Your task to perform on an android device: change notifications settings Image 0: 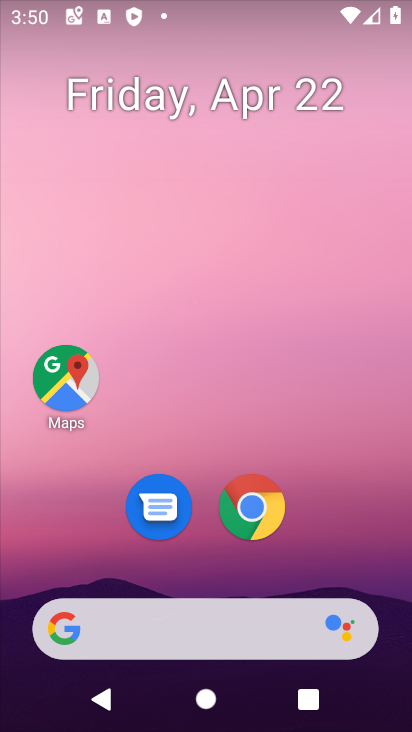
Step 0: drag from (350, 532) to (346, 47)
Your task to perform on an android device: change notifications settings Image 1: 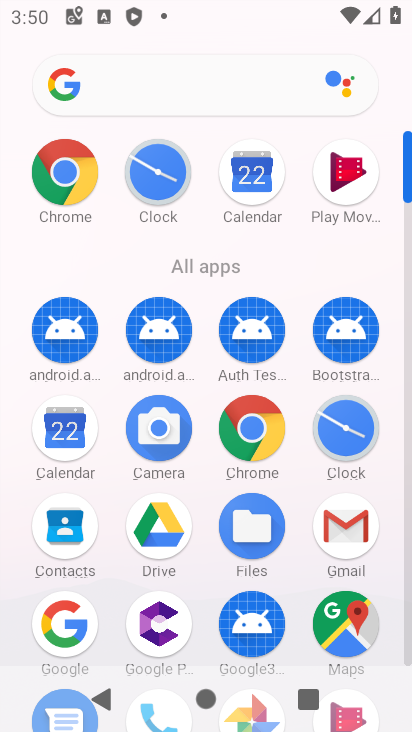
Step 1: drag from (409, 495) to (408, 129)
Your task to perform on an android device: change notifications settings Image 2: 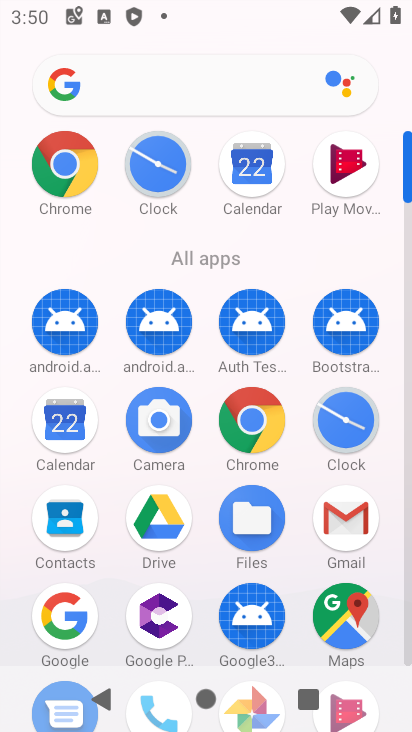
Step 2: drag from (384, 519) to (411, 312)
Your task to perform on an android device: change notifications settings Image 3: 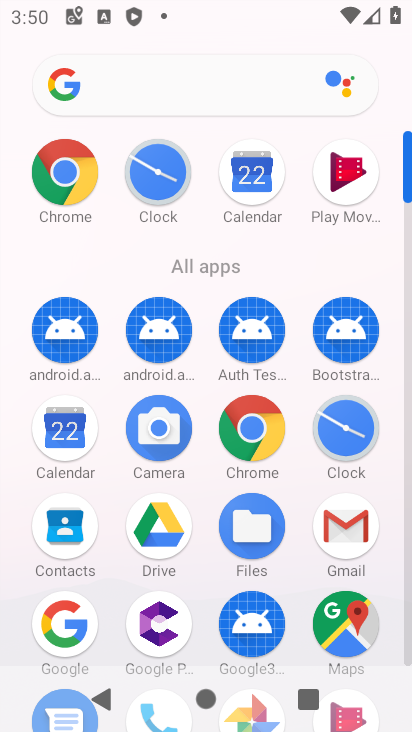
Step 3: drag from (381, 595) to (337, 151)
Your task to perform on an android device: change notifications settings Image 4: 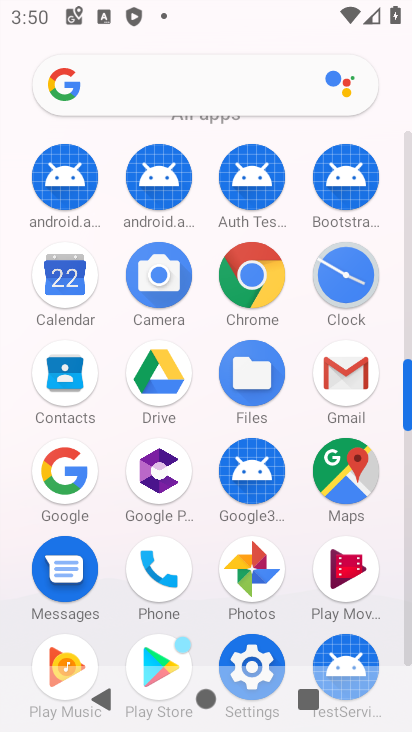
Step 4: click (264, 651)
Your task to perform on an android device: change notifications settings Image 5: 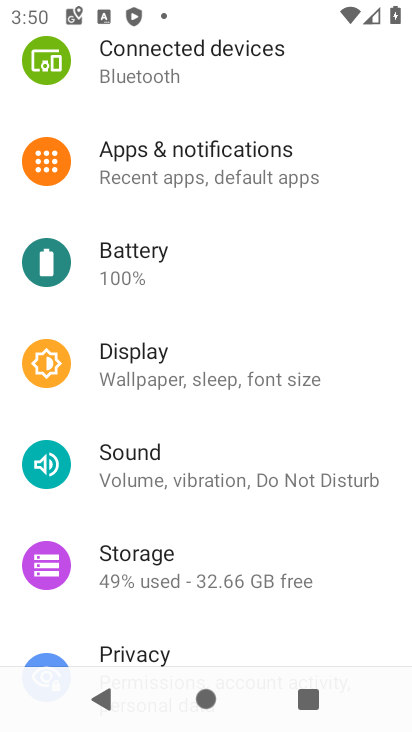
Step 5: click (248, 169)
Your task to perform on an android device: change notifications settings Image 6: 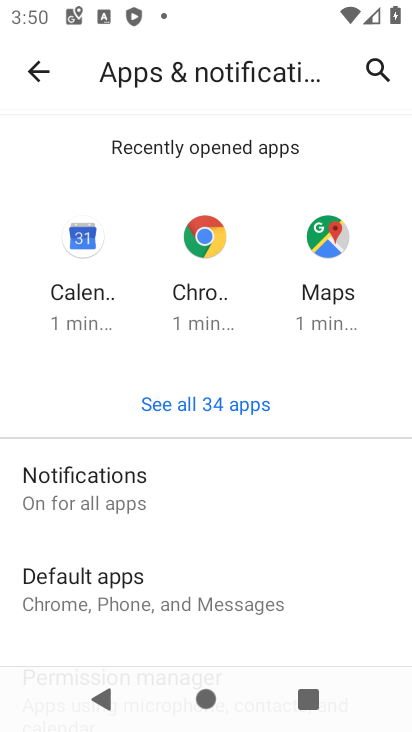
Step 6: click (73, 489)
Your task to perform on an android device: change notifications settings Image 7: 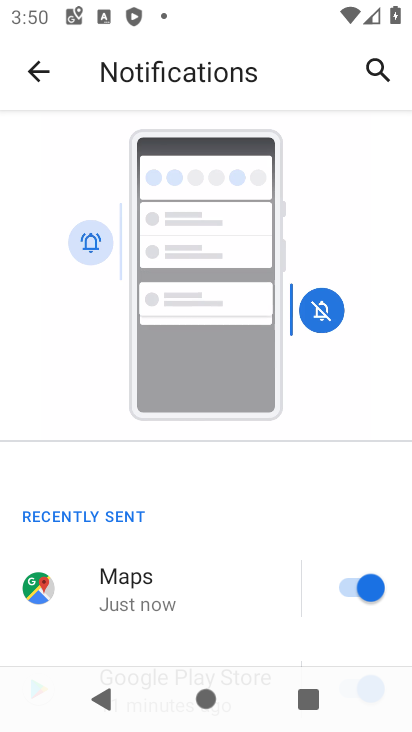
Step 7: drag from (232, 590) to (190, 157)
Your task to perform on an android device: change notifications settings Image 8: 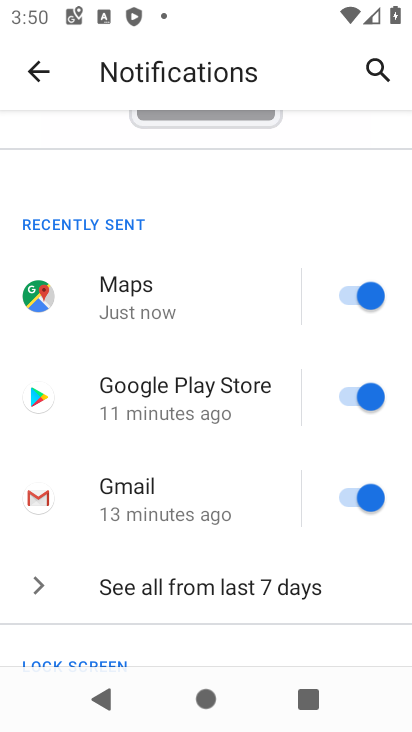
Step 8: click (339, 290)
Your task to perform on an android device: change notifications settings Image 9: 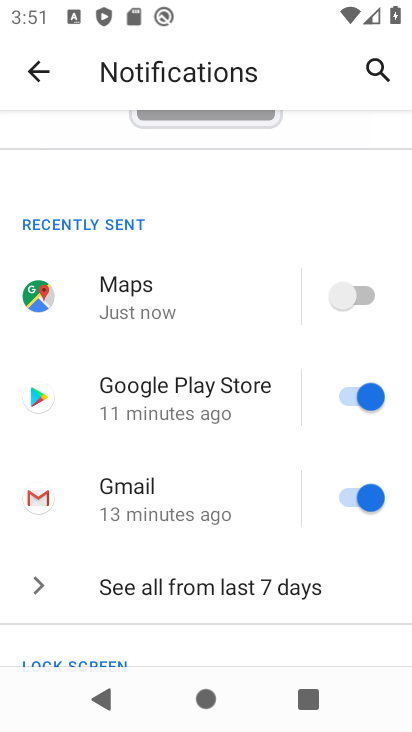
Step 9: task complete